Your task to perform on an android device: Turn on the flashlight Image 0: 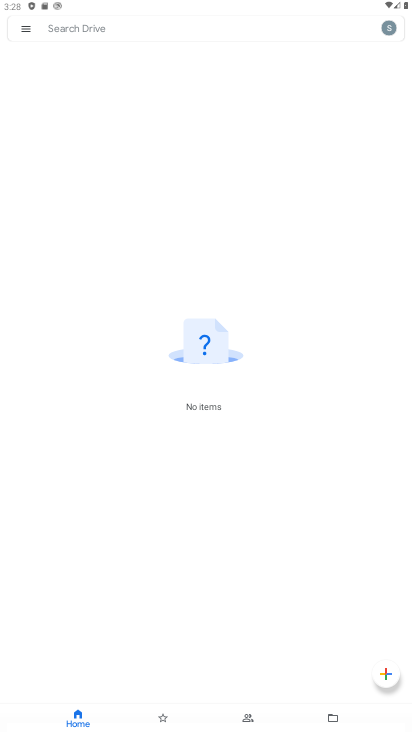
Step 0: press home button
Your task to perform on an android device: Turn on the flashlight Image 1: 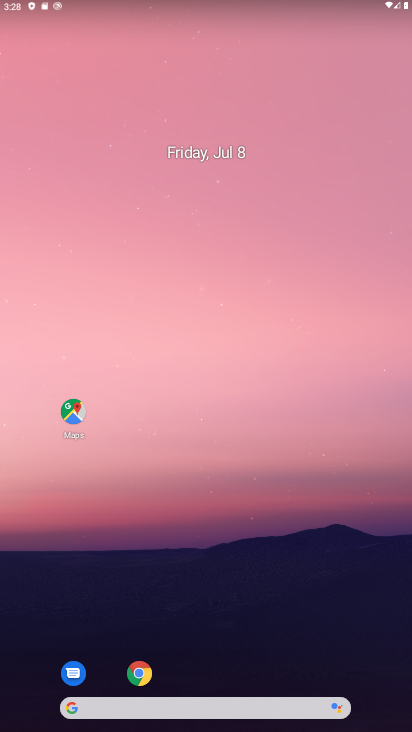
Step 1: task complete